Your task to perform on an android device: Go to ESPN.com Image 0: 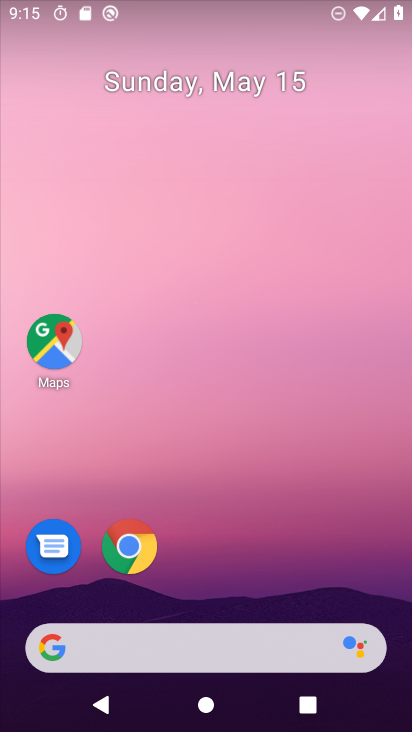
Step 0: click (236, 648)
Your task to perform on an android device: Go to ESPN.com Image 1: 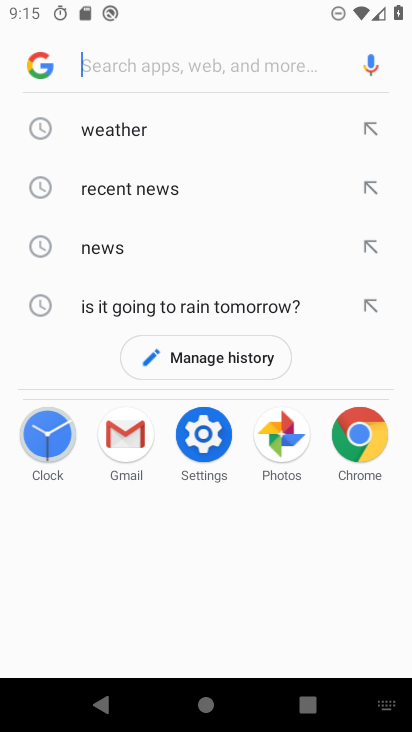
Step 1: type "espn.com"
Your task to perform on an android device: Go to ESPN.com Image 2: 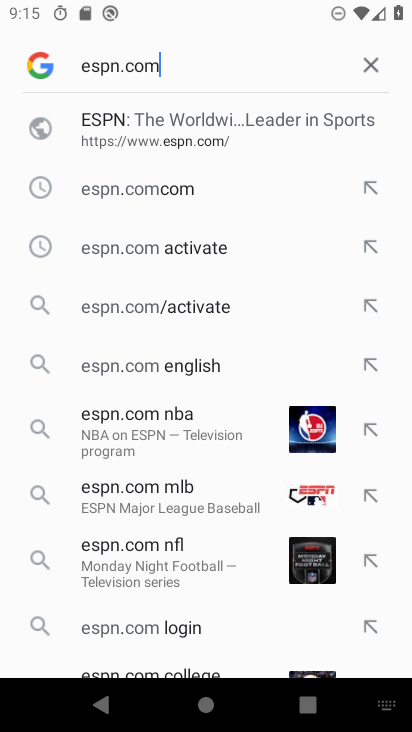
Step 2: click (100, 129)
Your task to perform on an android device: Go to ESPN.com Image 3: 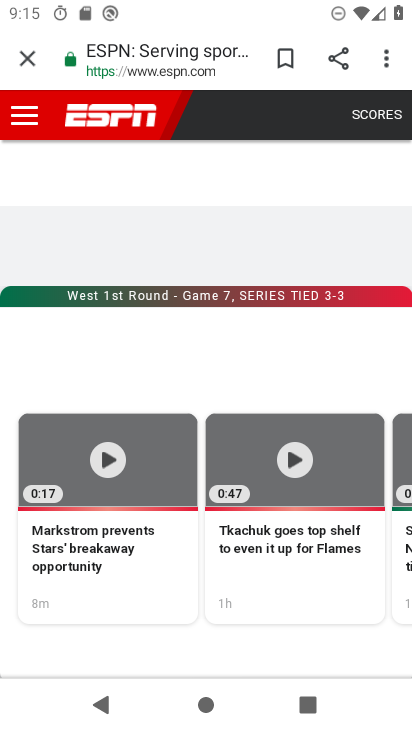
Step 3: task complete